Your task to perform on an android device: What's on my calendar today? Image 0: 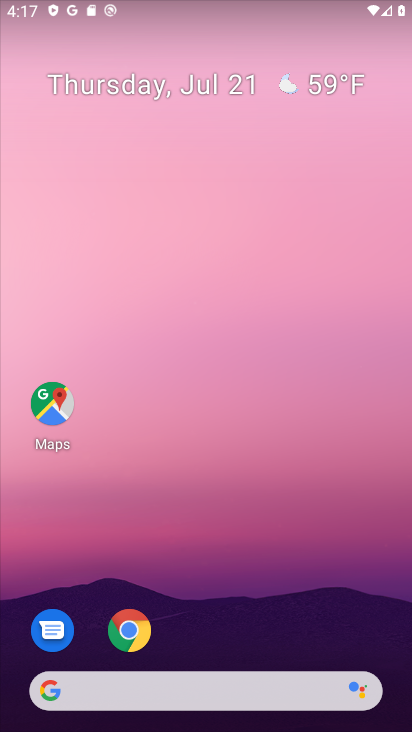
Step 0: drag from (169, 700) to (171, 303)
Your task to perform on an android device: What's on my calendar today? Image 1: 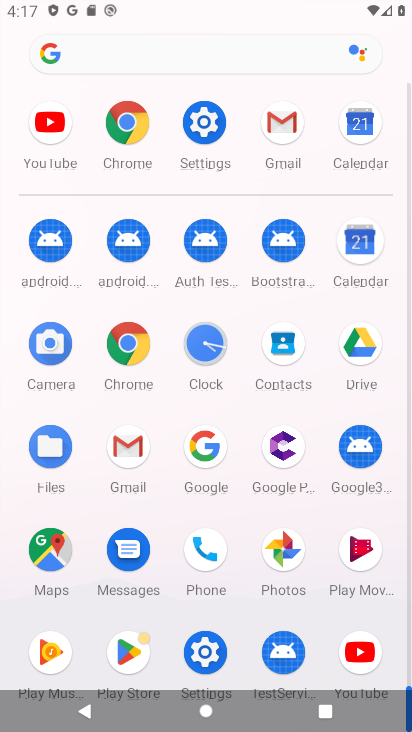
Step 1: click (363, 247)
Your task to perform on an android device: What's on my calendar today? Image 2: 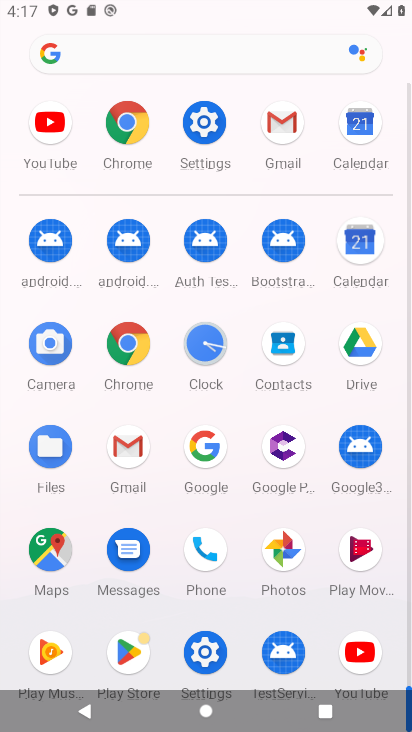
Step 2: click (360, 244)
Your task to perform on an android device: What's on my calendar today? Image 3: 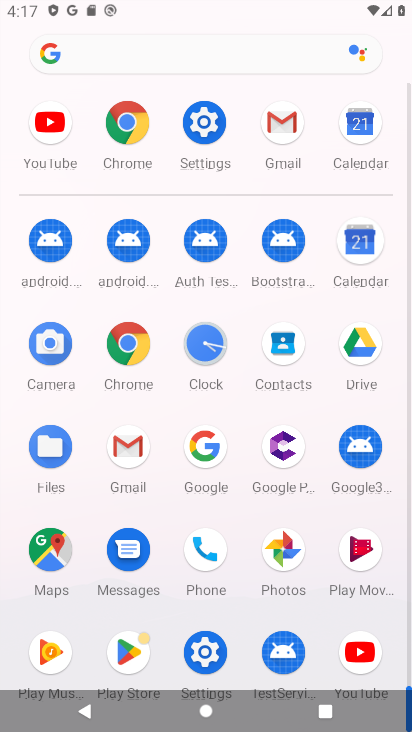
Step 3: click (360, 244)
Your task to perform on an android device: What's on my calendar today? Image 4: 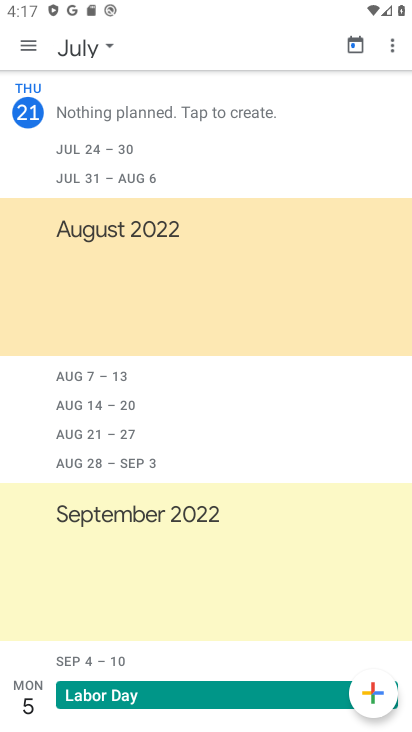
Step 4: click (110, 44)
Your task to perform on an android device: What's on my calendar today? Image 5: 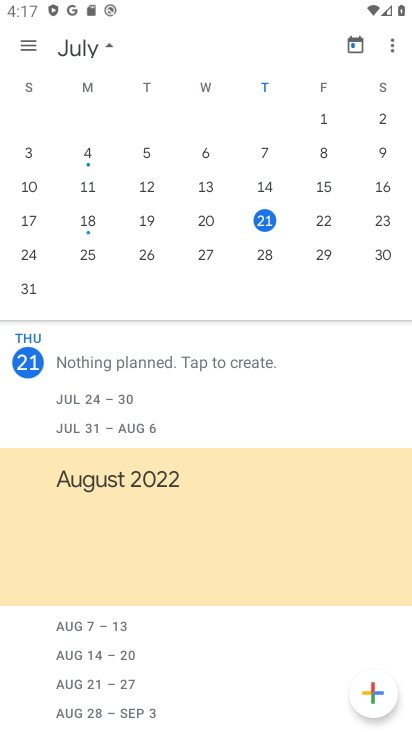
Step 5: click (257, 207)
Your task to perform on an android device: What's on my calendar today? Image 6: 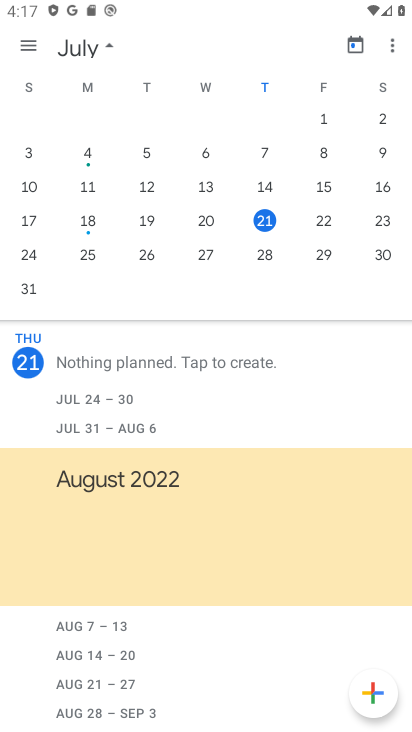
Step 6: task complete